Your task to perform on an android device: turn off location history Image 0: 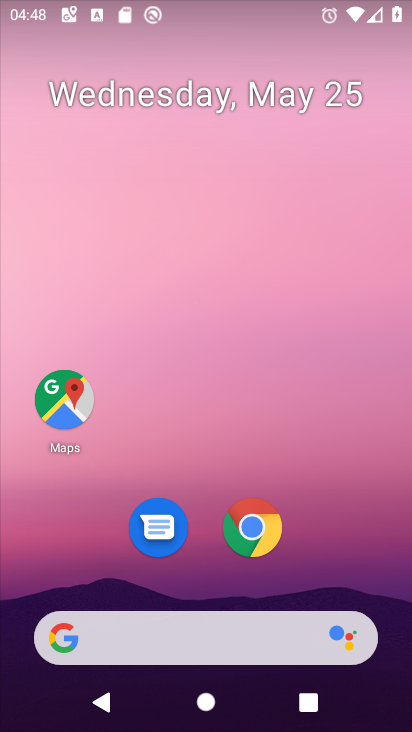
Step 0: drag from (203, 572) to (253, 113)
Your task to perform on an android device: turn off location history Image 1: 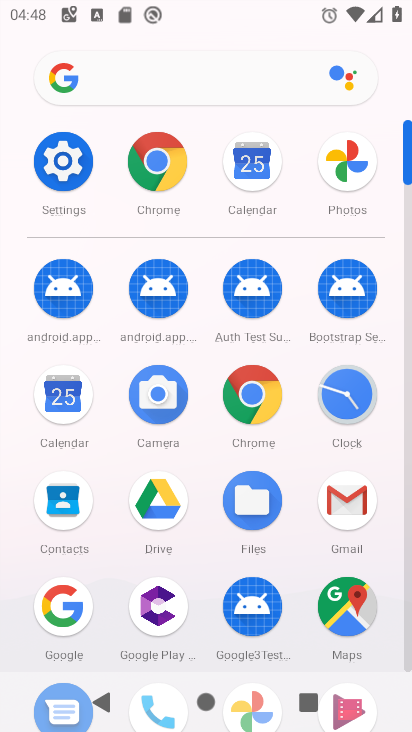
Step 1: click (74, 194)
Your task to perform on an android device: turn off location history Image 2: 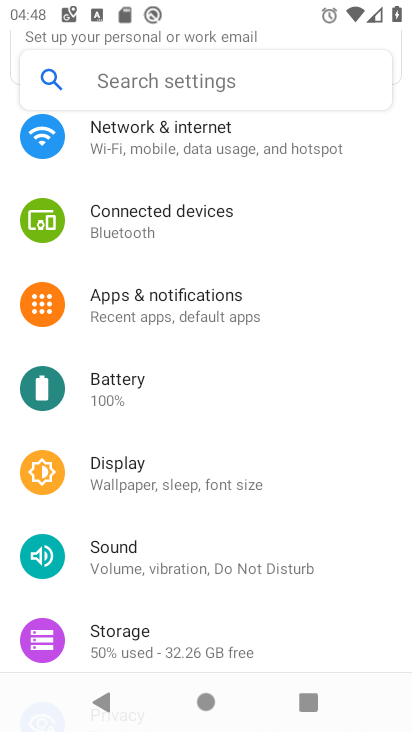
Step 2: drag from (292, 475) to (312, 252)
Your task to perform on an android device: turn off location history Image 3: 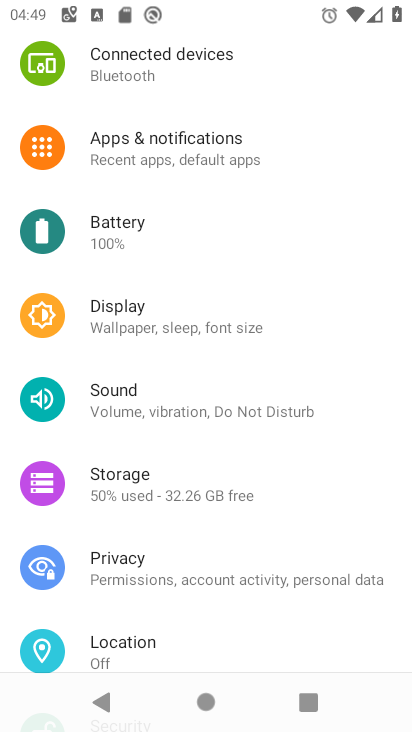
Step 3: click (143, 641)
Your task to perform on an android device: turn off location history Image 4: 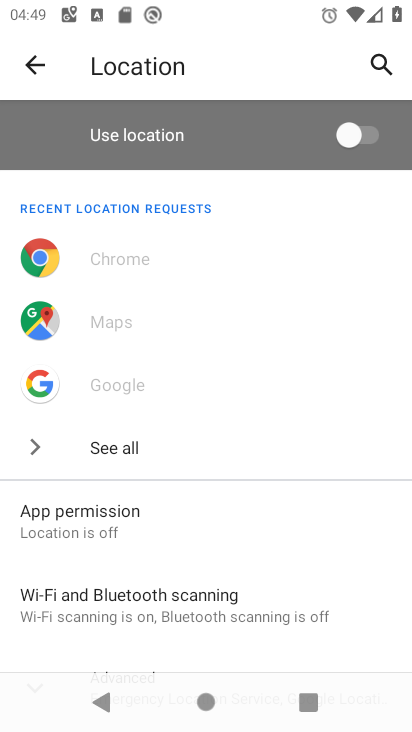
Step 4: task complete